Your task to perform on an android device: Turn on the flashlight Image 0: 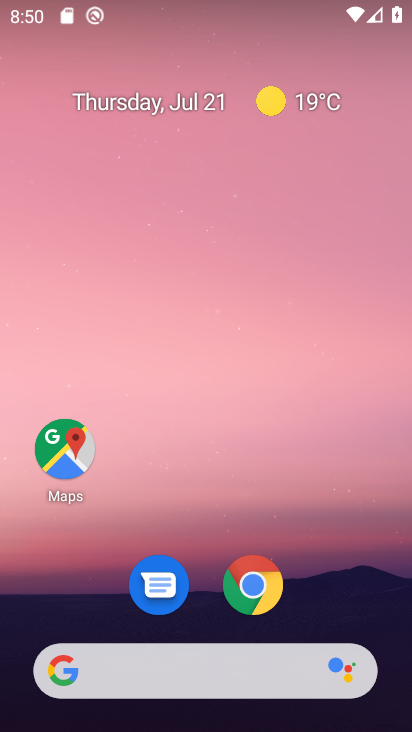
Step 0: drag from (312, 607) to (258, 46)
Your task to perform on an android device: Turn on the flashlight Image 1: 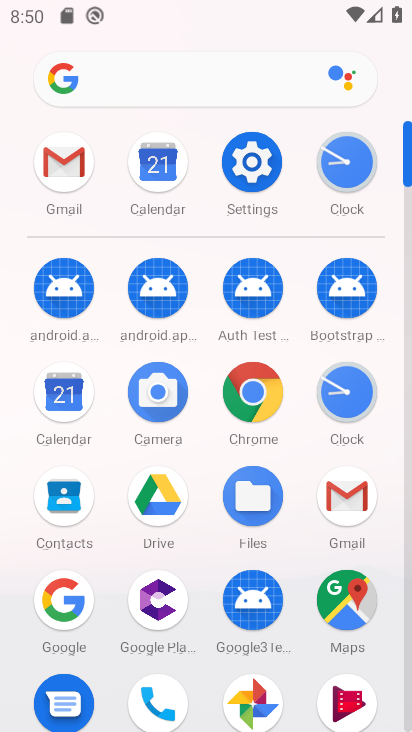
Step 1: click (250, 164)
Your task to perform on an android device: Turn on the flashlight Image 2: 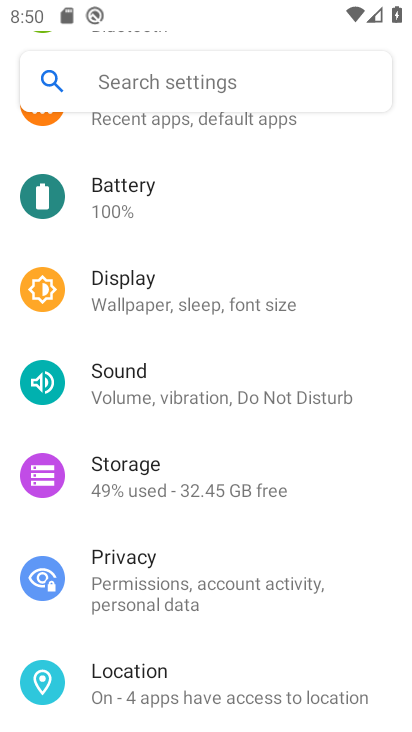
Step 2: drag from (195, 226) to (203, 615)
Your task to perform on an android device: Turn on the flashlight Image 3: 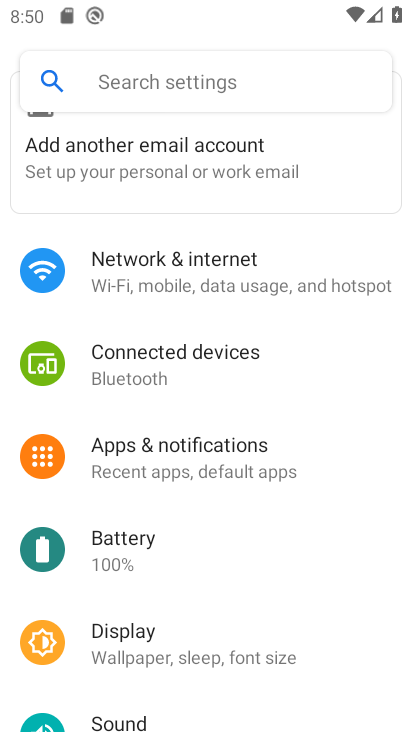
Step 3: drag from (257, 309) to (278, 637)
Your task to perform on an android device: Turn on the flashlight Image 4: 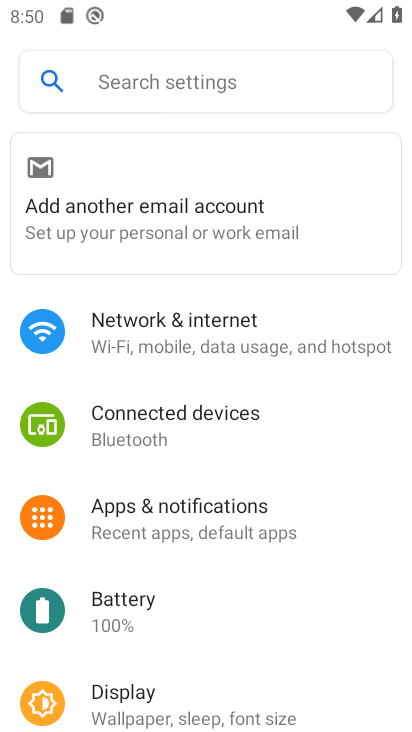
Step 4: click (248, 77)
Your task to perform on an android device: Turn on the flashlight Image 5: 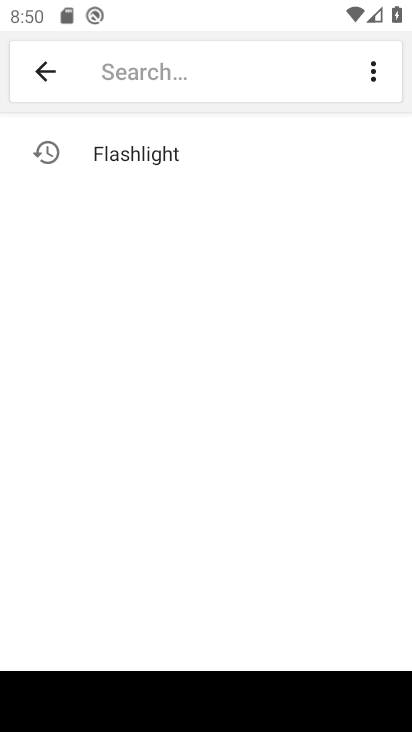
Step 5: click (154, 156)
Your task to perform on an android device: Turn on the flashlight Image 6: 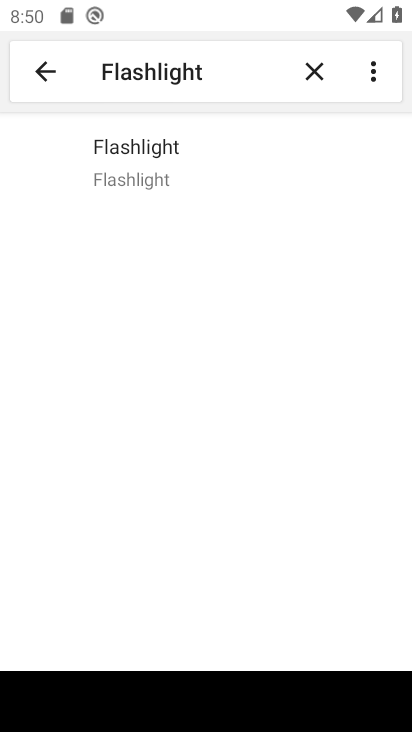
Step 6: click (157, 170)
Your task to perform on an android device: Turn on the flashlight Image 7: 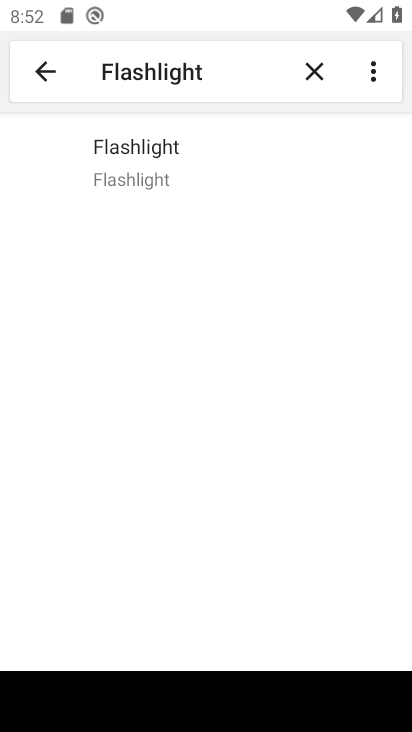
Step 7: task complete